Your task to perform on an android device: Open the web browser Image 0: 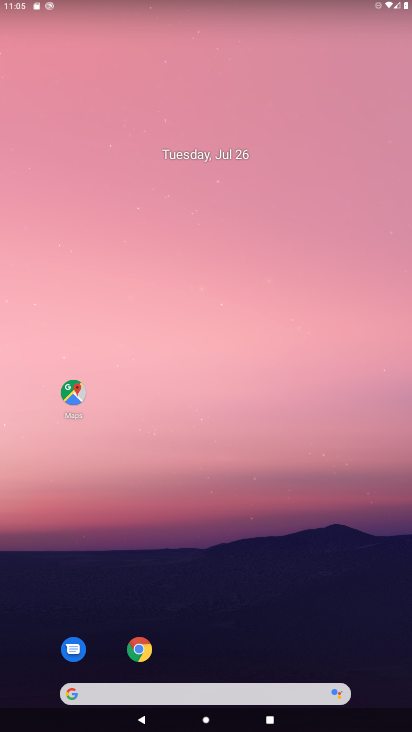
Step 0: click (151, 642)
Your task to perform on an android device: Open the web browser Image 1: 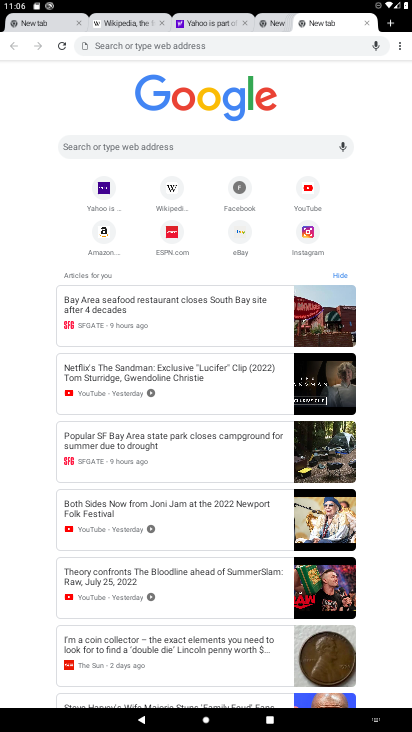
Step 1: task complete